Your task to perform on an android device: Open Google Chrome Image 0: 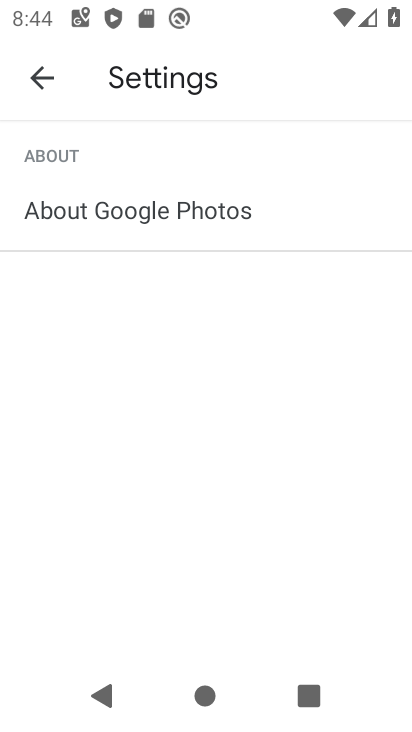
Step 0: press back button
Your task to perform on an android device: Open Google Chrome Image 1: 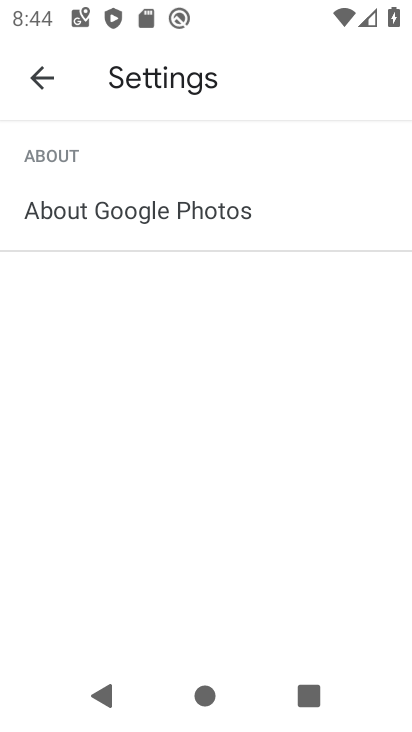
Step 1: press home button
Your task to perform on an android device: Open Google Chrome Image 2: 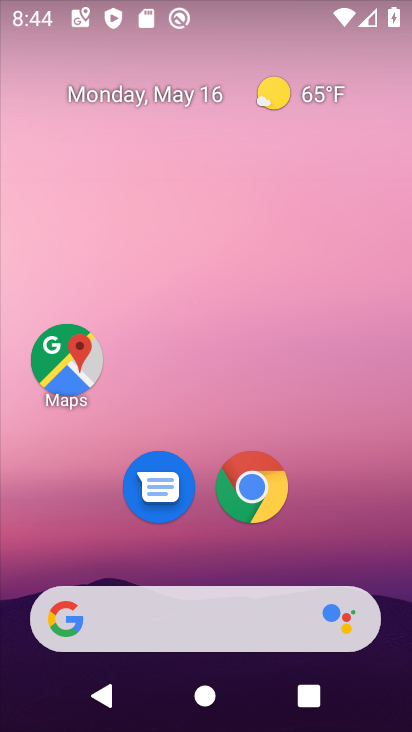
Step 2: drag from (350, 522) to (336, 143)
Your task to perform on an android device: Open Google Chrome Image 3: 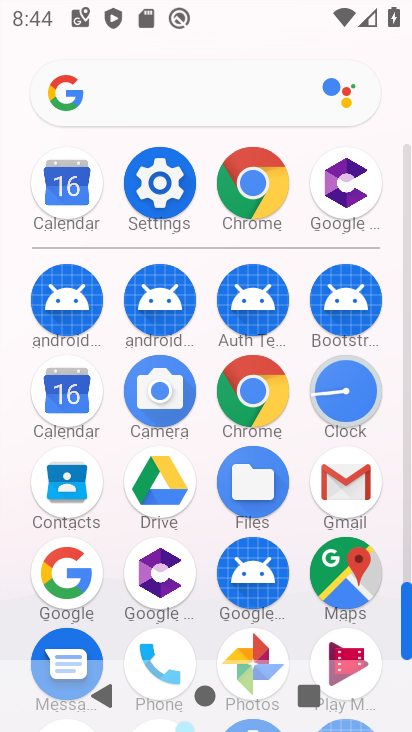
Step 3: click (275, 412)
Your task to perform on an android device: Open Google Chrome Image 4: 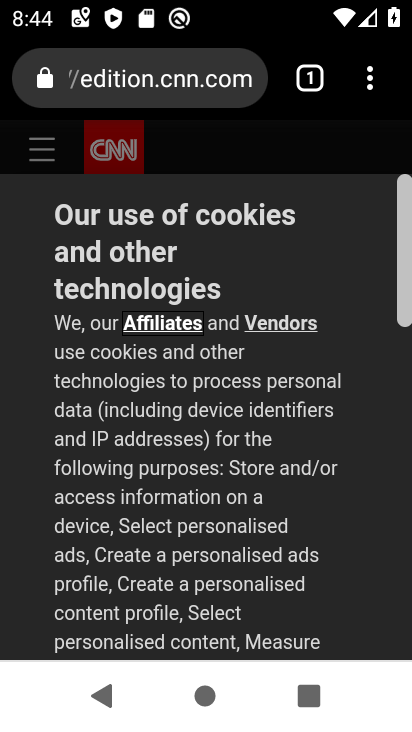
Step 4: task complete